Your task to perform on an android device: Go to notification settings Image 0: 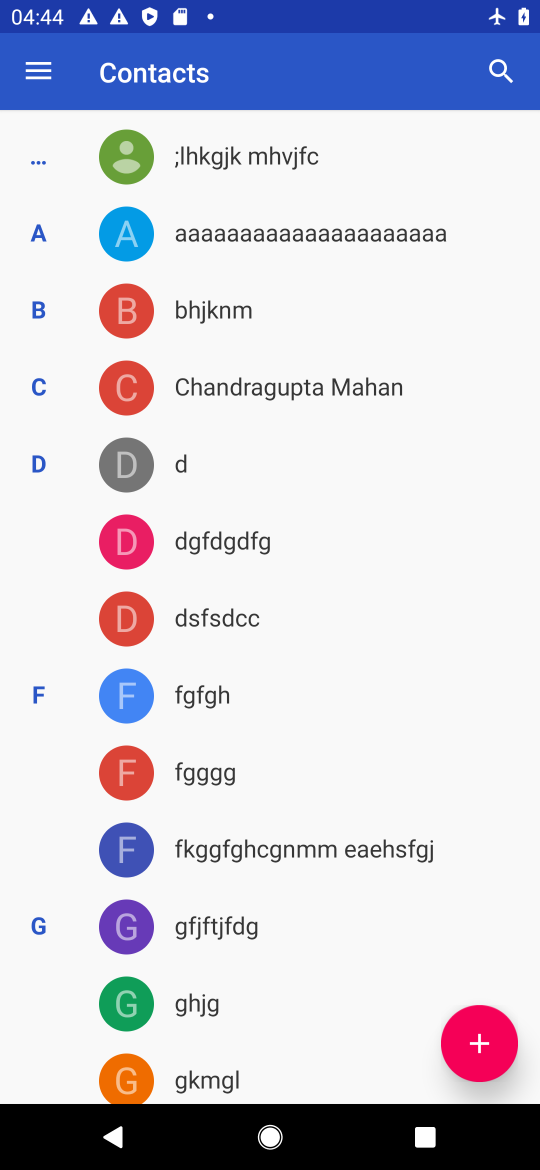
Step 0: press home button
Your task to perform on an android device: Go to notification settings Image 1: 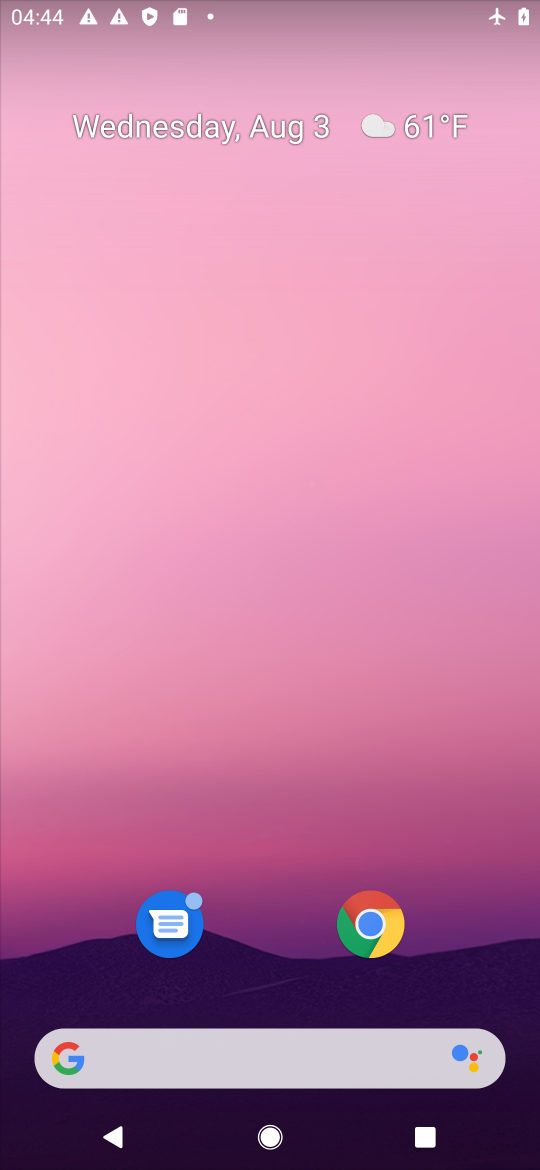
Step 1: drag from (248, 971) to (234, 275)
Your task to perform on an android device: Go to notification settings Image 2: 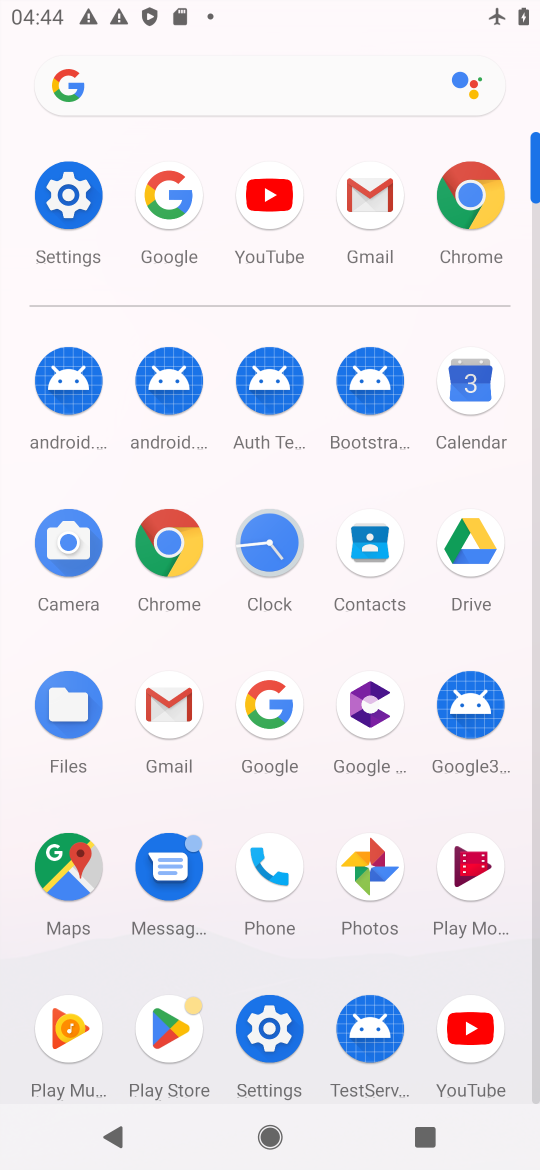
Step 2: click (51, 199)
Your task to perform on an android device: Go to notification settings Image 3: 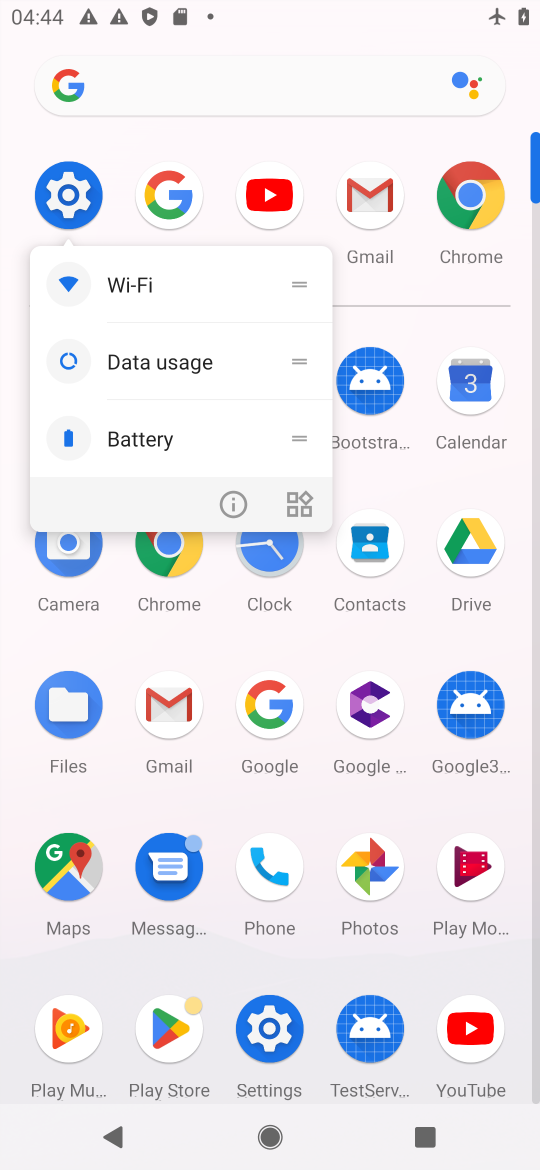
Step 3: click (53, 201)
Your task to perform on an android device: Go to notification settings Image 4: 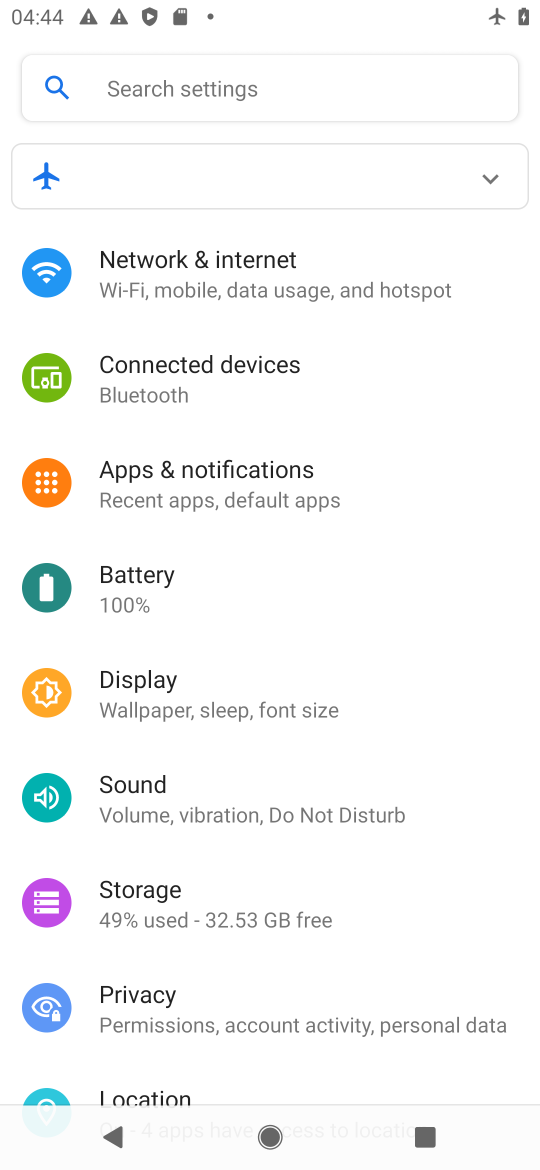
Step 4: click (152, 495)
Your task to perform on an android device: Go to notification settings Image 5: 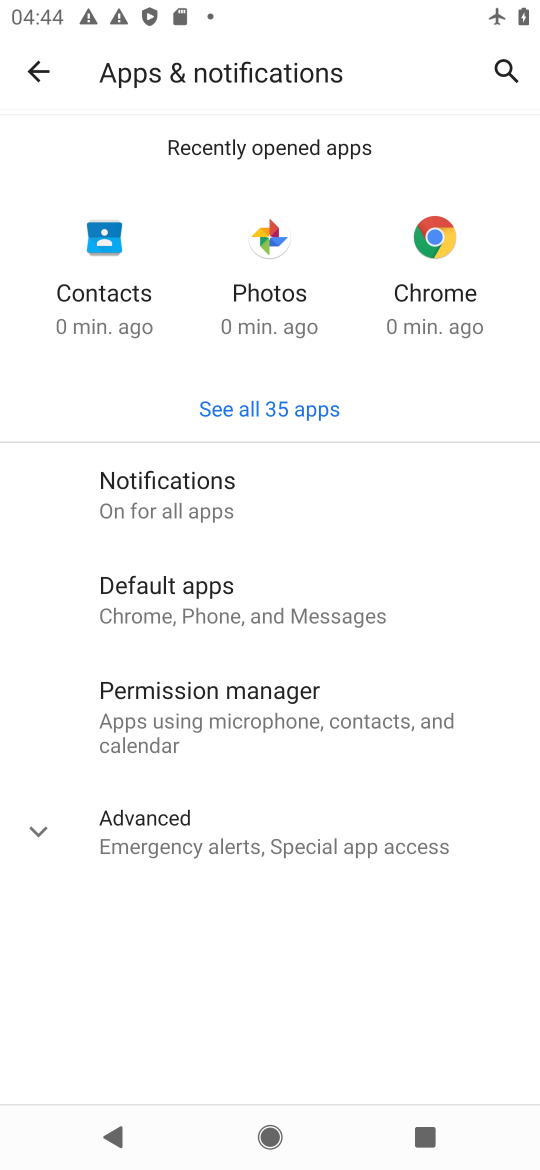
Step 5: click (166, 468)
Your task to perform on an android device: Go to notification settings Image 6: 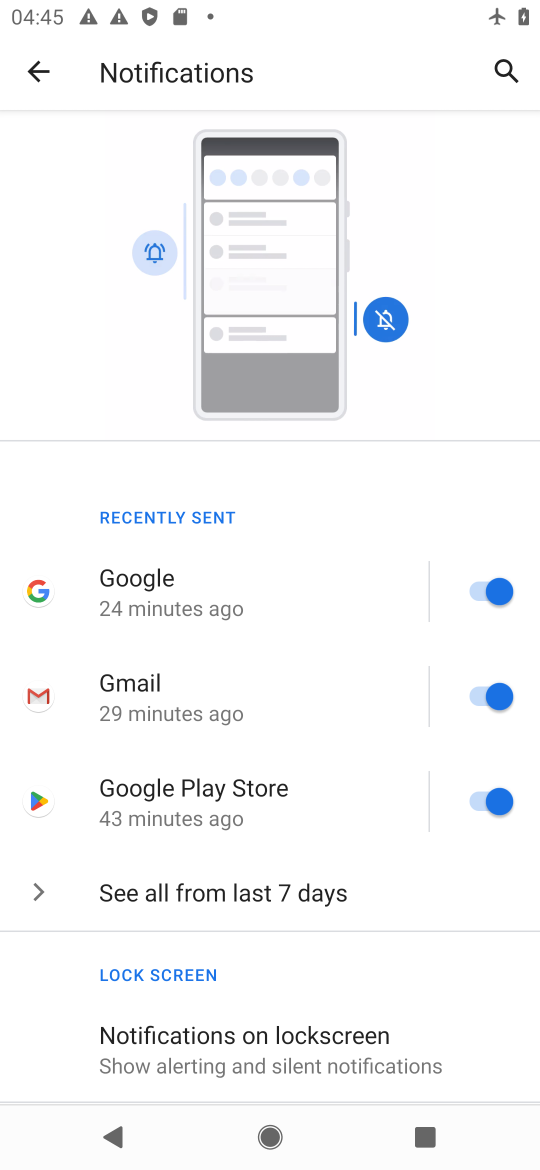
Step 6: task complete